Your task to perform on an android device: turn on translation in the chrome app Image 0: 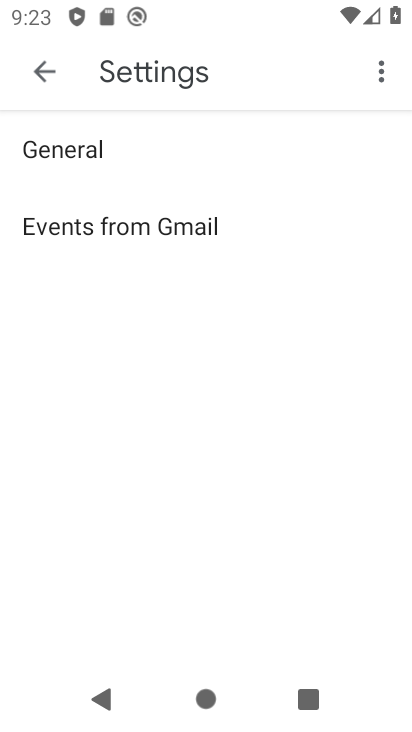
Step 0: press back button
Your task to perform on an android device: turn on translation in the chrome app Image 1: 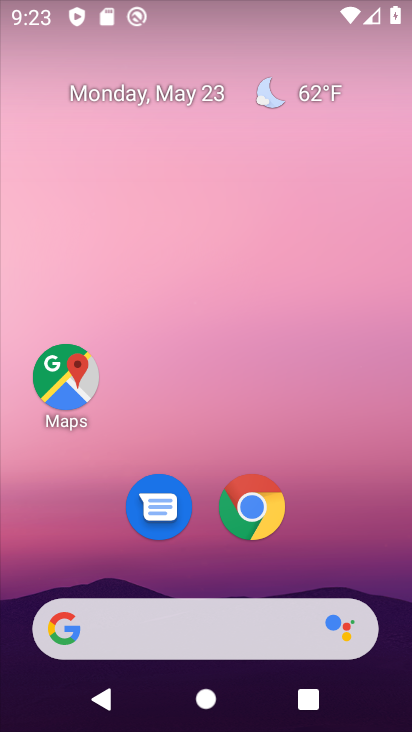
Step 1: click (256, 508)
Your task to perform on an android device: turn on translation in the chrome app Image 2: 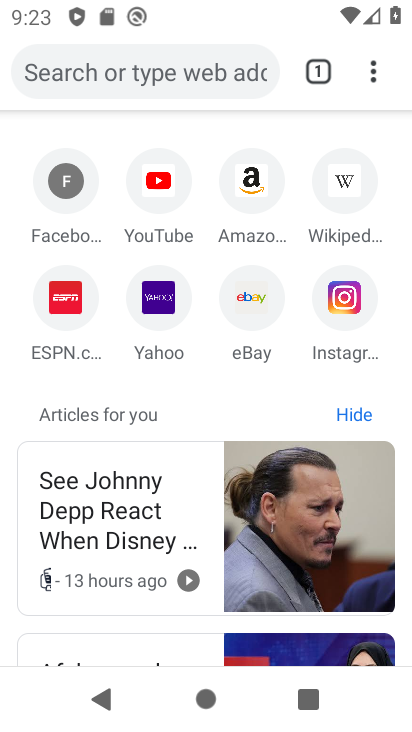
Step 2: click (374, 70)
Your task to perform on an android device: turn on translation in the chrome app Image 3: 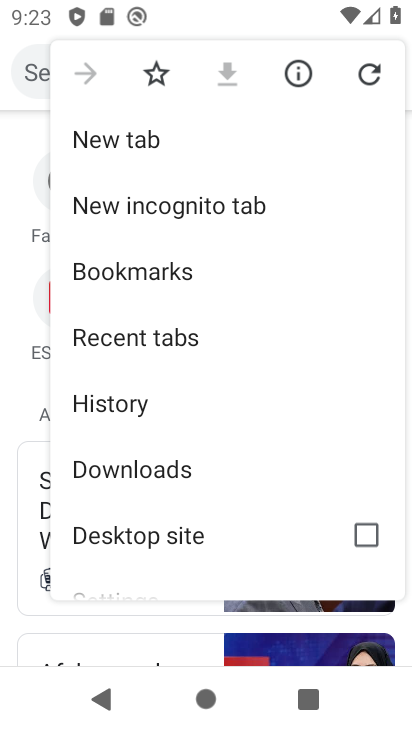
Step 3: drag from (100, 436) to (127, 369)
Your task to perform on an android device: turn on translation in the chrome app Image 4: 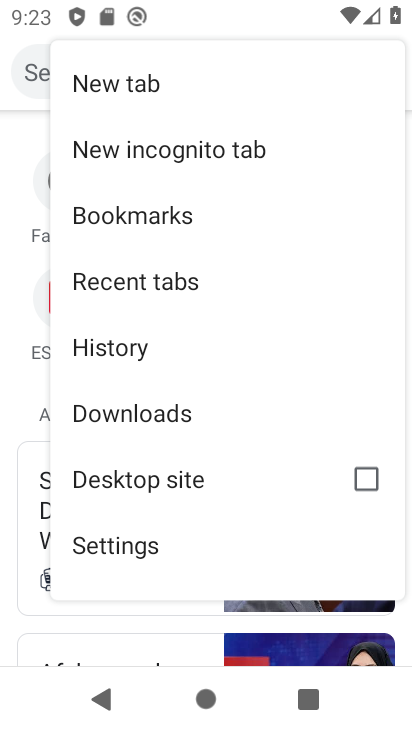
Step 4: drag from (119, 500) to (165, 432)
Your task to perform on an android device: turn on translation in the chrome app Image 5: 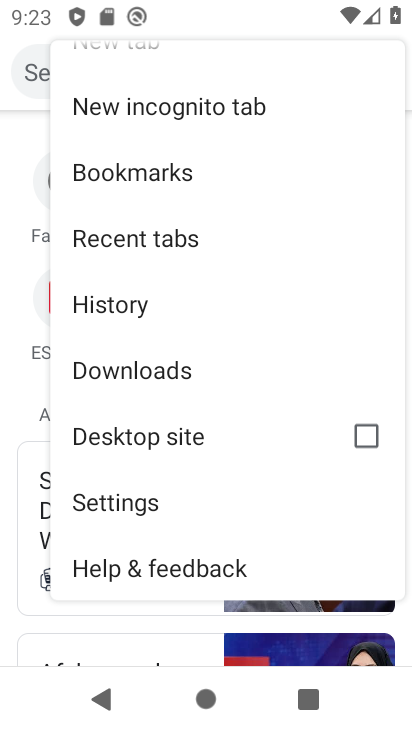
Step 5: click (104, 507)
Your task to perform on an android device: turn on translation in the chrome app Image 6: 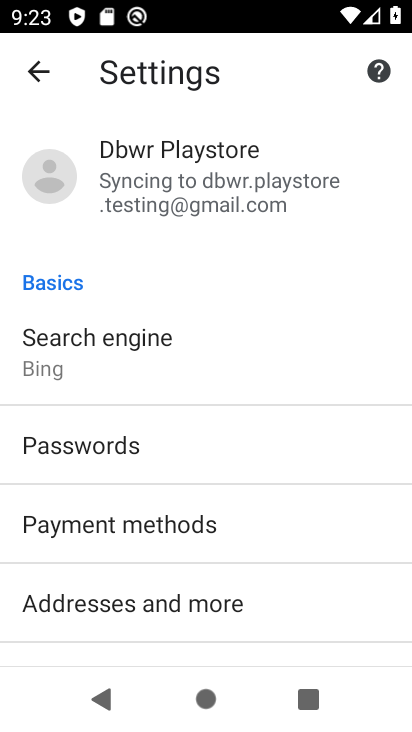
Step 6: drag from (125, 520) to (175, 441)
Your task to perform on an android device: turn on translation in the chrome app Image 7: 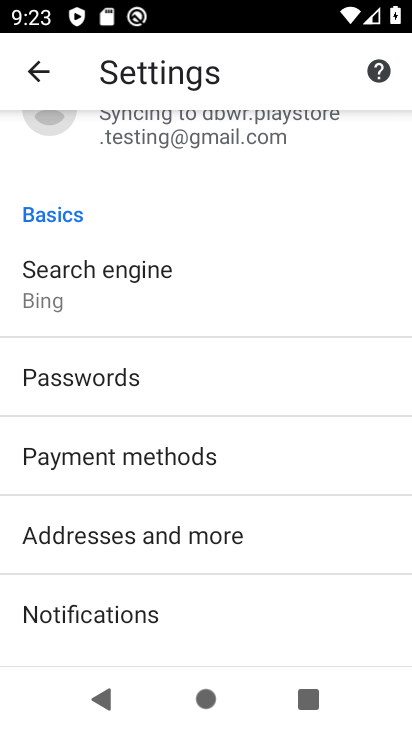
Step 7: drag from (110, 543) to (172, 465)
Your task to perform on an android device: turn on translation in the chrome app Image 8: 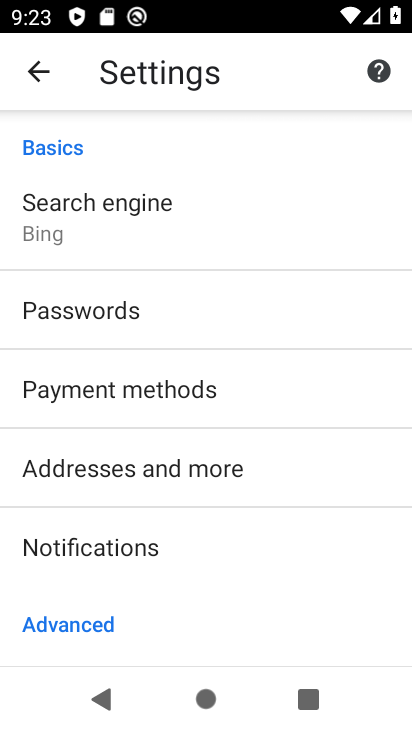
Step 8: drag from (106, 585) to (172, 504)
Your task to perform on an android device: turn on translation in the chrome app Image 9: 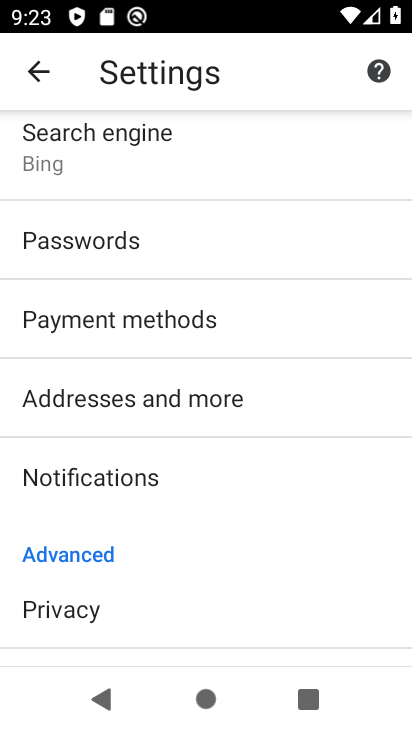
Step 9: drag from (118, 569) to (178, 490)
Your task to perform on an android device: turn on translation in the chrome app Image 10: 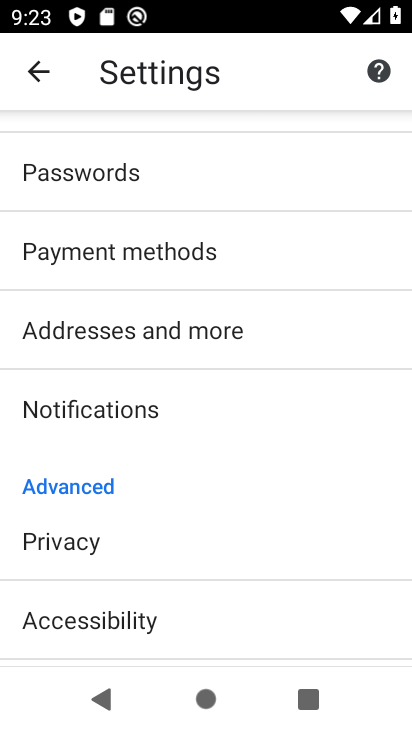
Step 10: drag from (99, 583) to (159, 511)
Your task to perform on an android device: turn on translation in the chrome app Image 11: 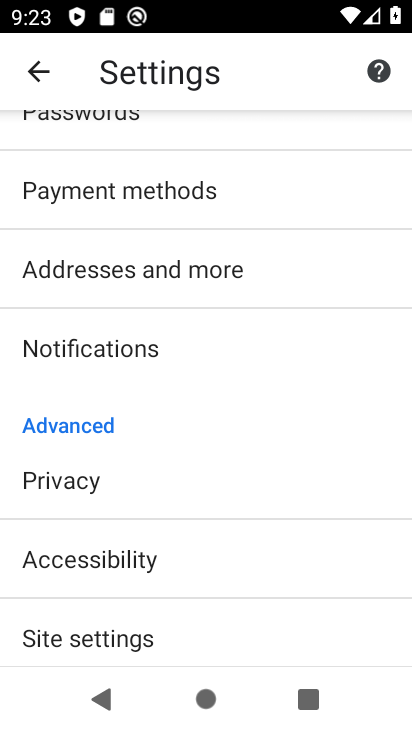
Step 11: drag from (87, 603) to (151, 512)
Your task to perform on an android device: turn on translation in the chrome app Image 12: 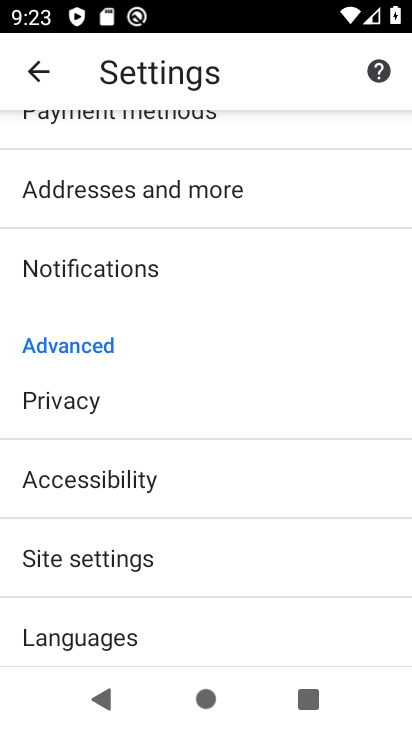
Step 12: drag from (91, 607) to (177, 503)
Your task to perform on an android device: turn on translation in the chrome app Image 13: 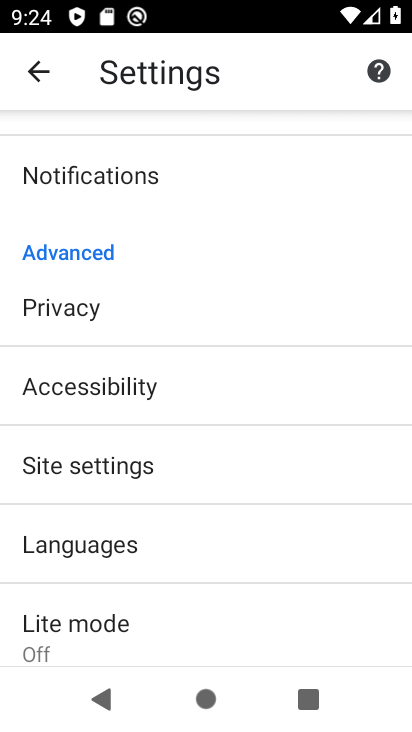
Step 13: click (92, 555)
Your task to perform on an android device: turn on translation in the chrome app Image 14: 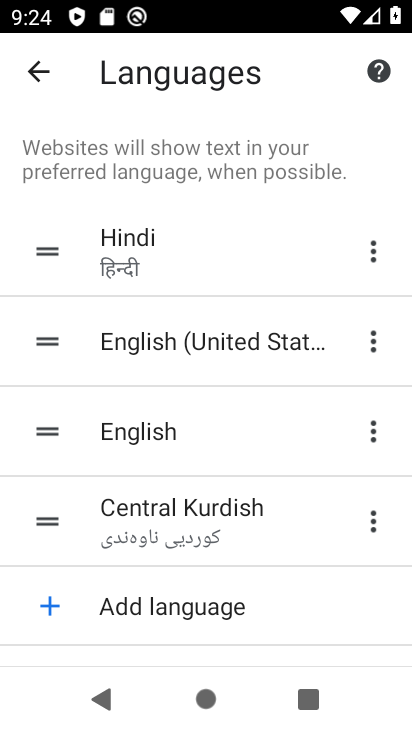
Step 14: task complete